Your task to perform on an android device: set an alarm Image 0: 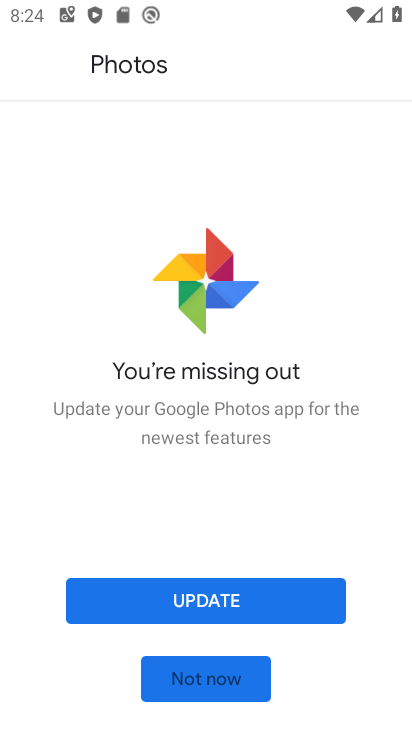
Step 0: press home button
Your task to perform on an android device: set an alarm Image 1: 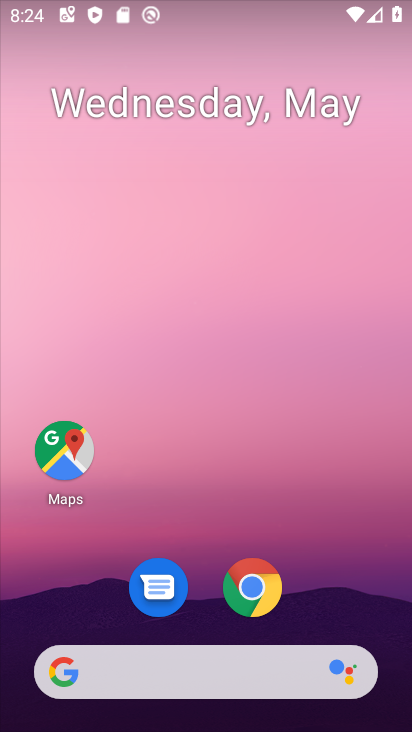
Step 1: drag from (228, 600) to (246, 19)
Your task to perform on an android device: set an alarm Image 2: 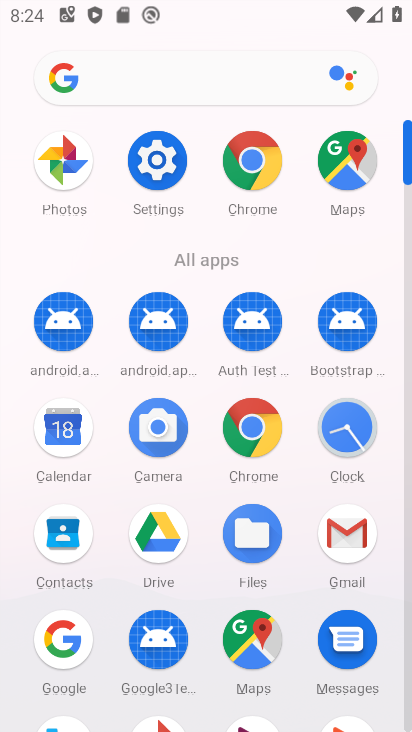
Step 2: click (357, 414)
Your task to perform on an android device: set an alarm Image 3: 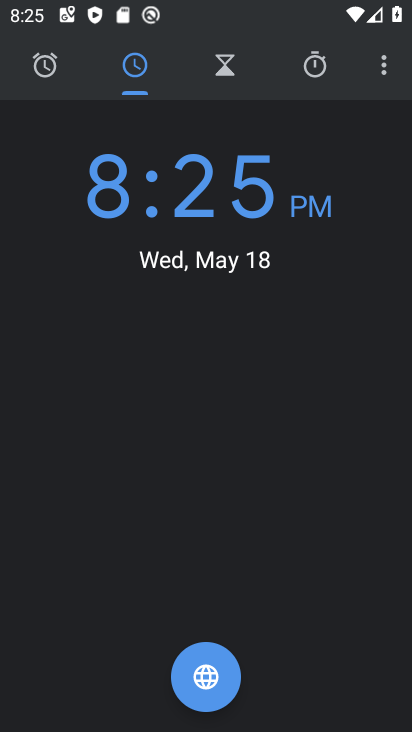
Step 3: click (58, 69)
Your task to perform on an android device: set an alarm Image 4: 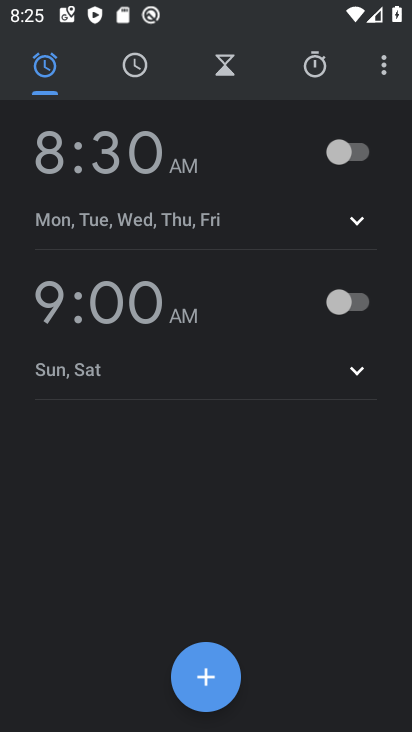
Step 4: click (141, 173)
Your task to perform on an android device: set an alarm Image 5: 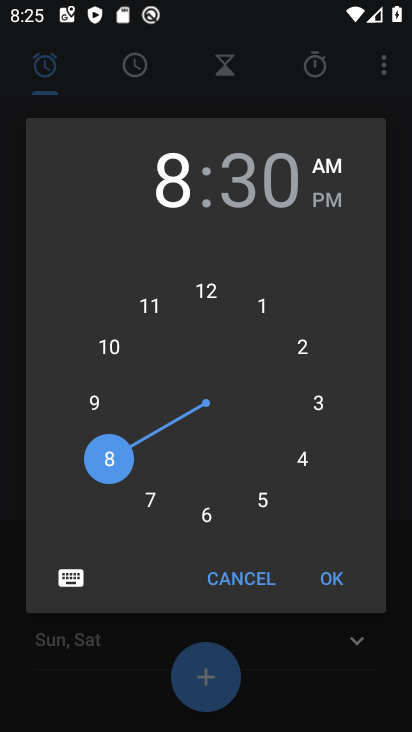
Step 5: click (262, 297)
Your task to perform on an android device: set an alarm Image 6: 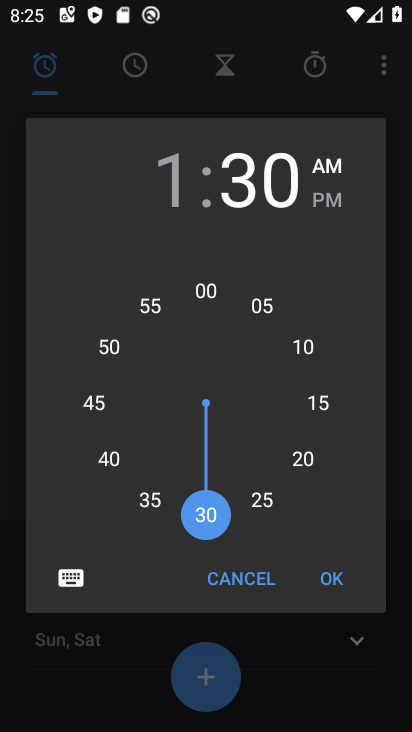
Step 6: click (275, 502)
Your task to perform on an android device: set an alarm Image 7: 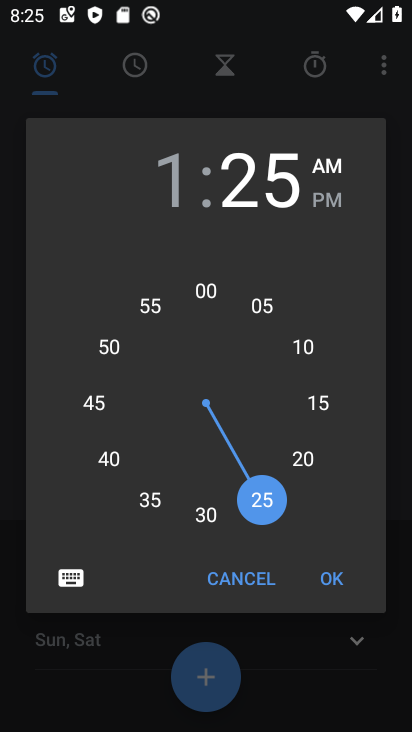
Step 7: click (326, 194)
Your task to perform on an android device: set an alarm Image 8: 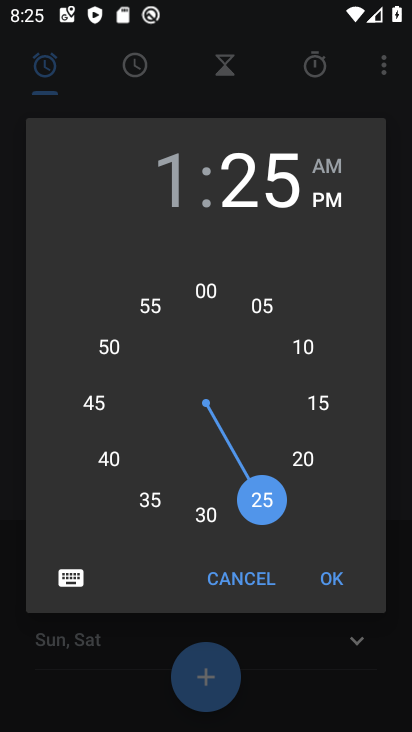
Step 8: click (332, 579)
Your task to perform on an android device: set an alarm Image 9: 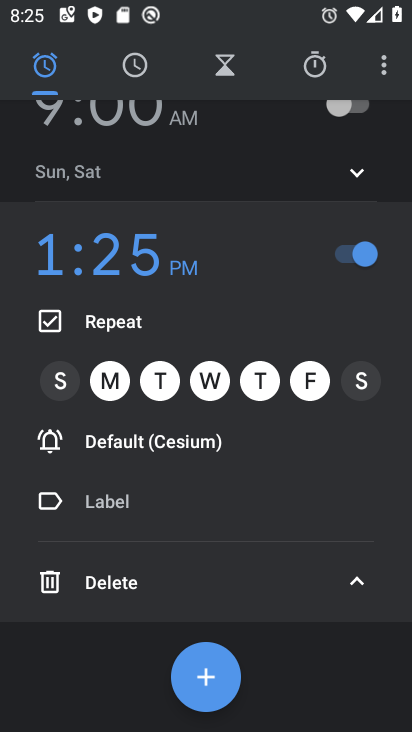
Step 9: click (208, 389)
Your task to perform on an android device: set an alarm Image 10: 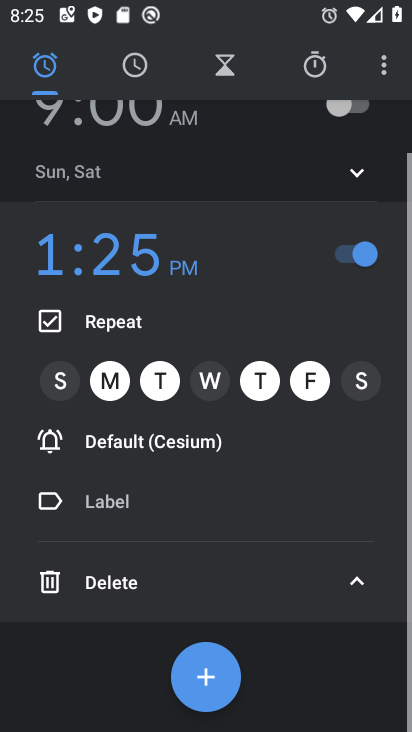
Step 10: click (369, 378)
Your task to perform on an android device: set an alarm Image 11: 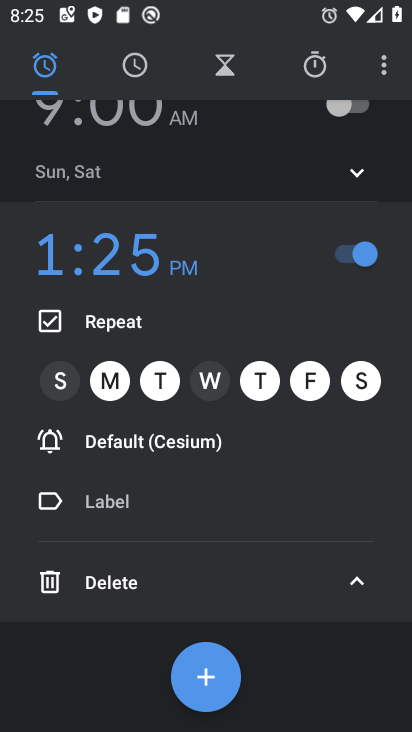
Step 11: task complete